Your task to perform on an android device: Open Google Chrome and open the bookmarks view Image 0: 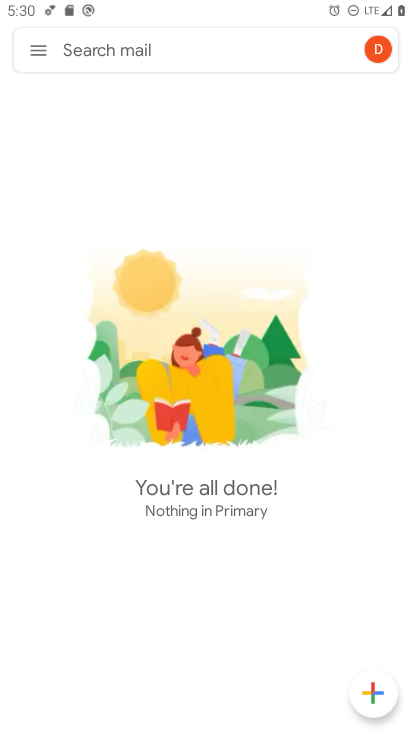
Step 0: press home button
Your task to perform on an android device: Open Google Chrome and open the bookmarks view Image 1: 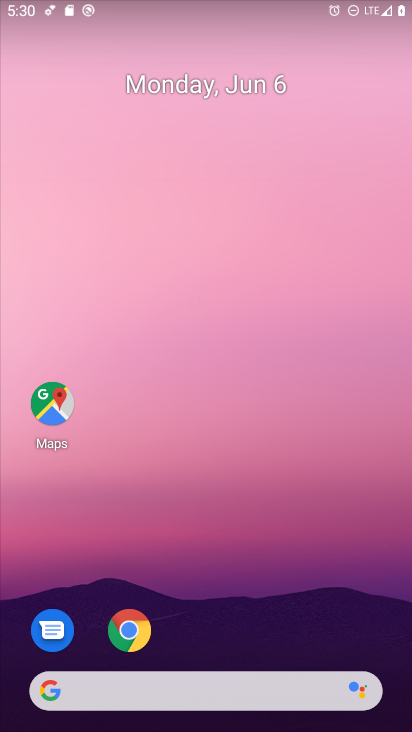
Step 1: click (132, 639)
Your task to perform on an android device: Open Google Chrome and open the bookmarks view Image 2: 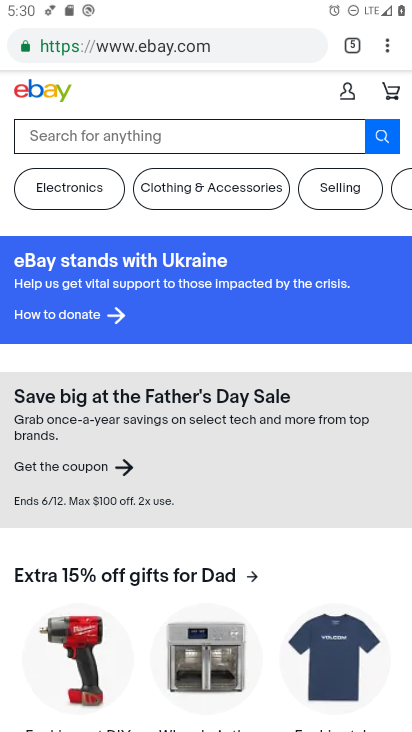
Step 2: click (381, 42)
Your task to perform on an android device: Open Google Chrome and open the bookmarks view Image 3: 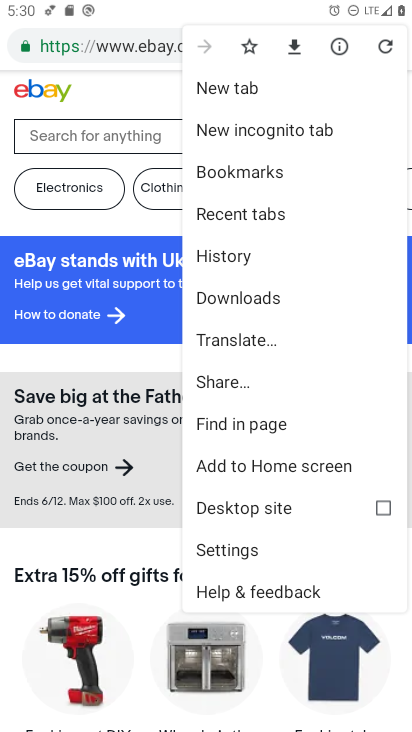
Step 3: click (275, 165)
Your task to perform on an android device: Open Google Chrome and open the bookmarks view Image 4: 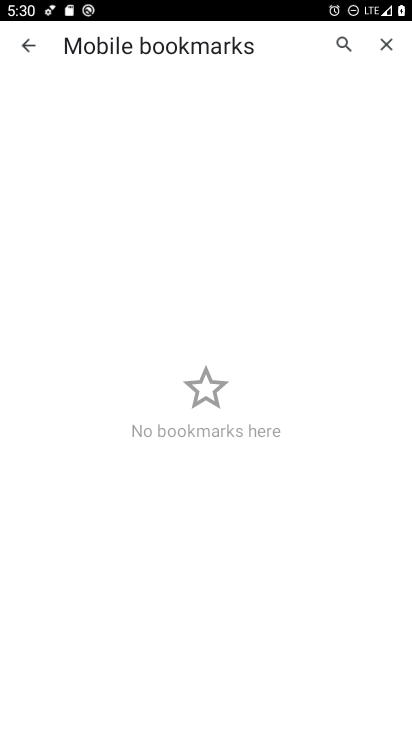
Step 4: task complete